Your task to perform on an android device: change timer sound Image 0: 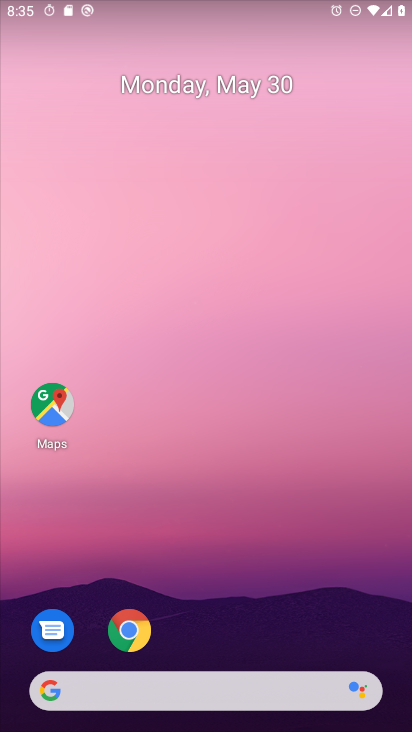
Step 0: drag from (344, 640) to (337, 54)
Your task to perform on an android device: change timer sound Image 1: 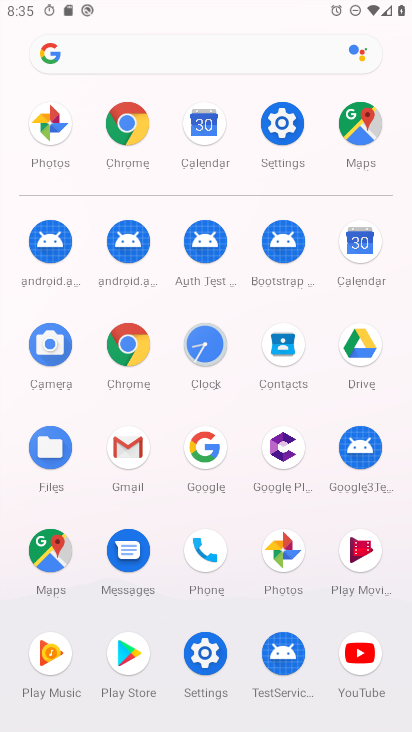
Step 1: click (212, 337)
Your task to perform on an android device: change timer sound Image 2: 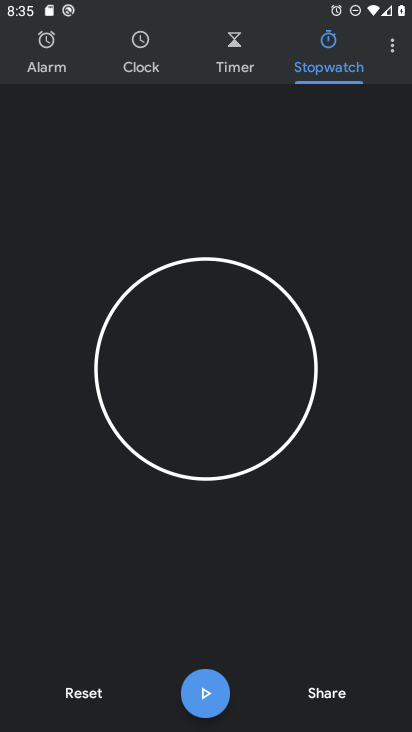
Step 2: click (393, 46)
Your task to perform on an android device: change timer sound Image 3: 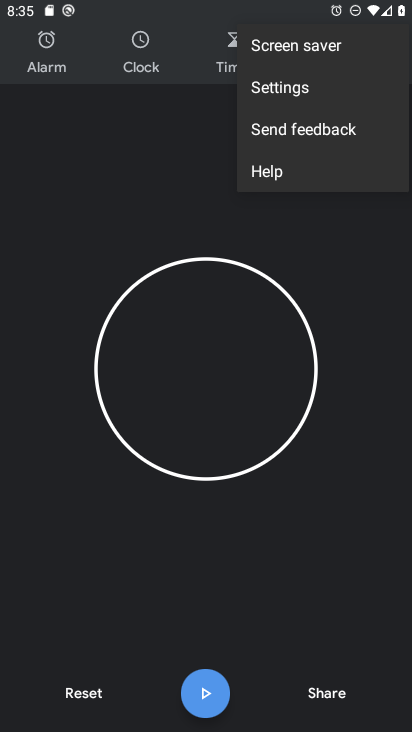
Step 3: click (298, 96)
Your task to perform on an android device: change timer sound Image 4: 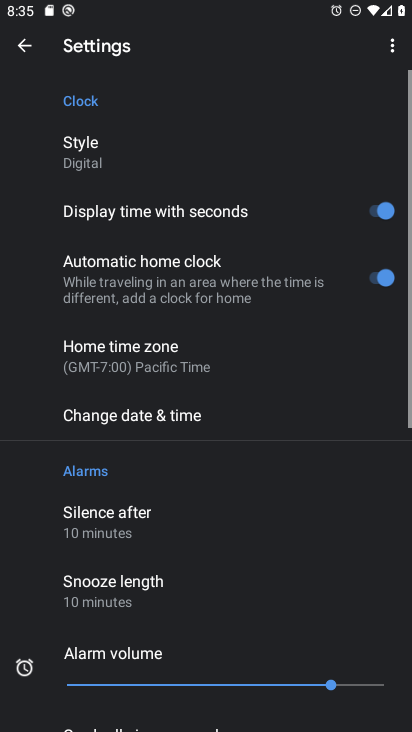
Step 4: drag from (194, 604) to (230, 64)
Your task to perform on an android device: change timer sound Image 5: 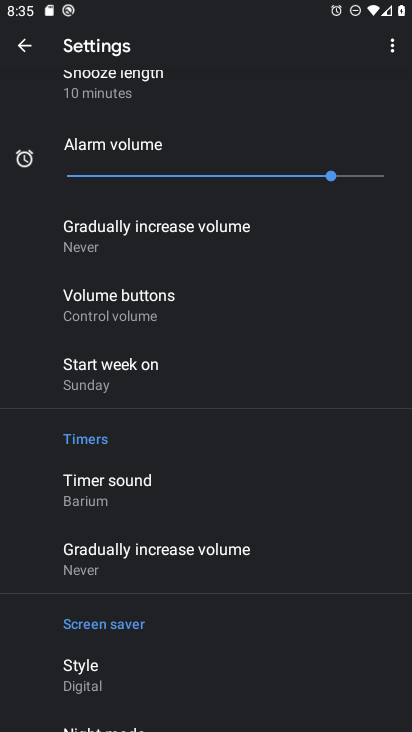
Step 5: click (134, 489)
Your task to perform on an android device: change timer sound Image 6: 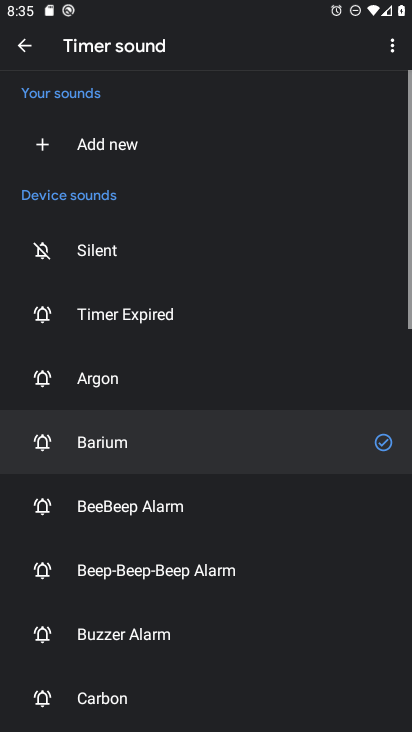
Step 6: click (184, 575)
Your task to perform on an android device: change timer sound Image 7: 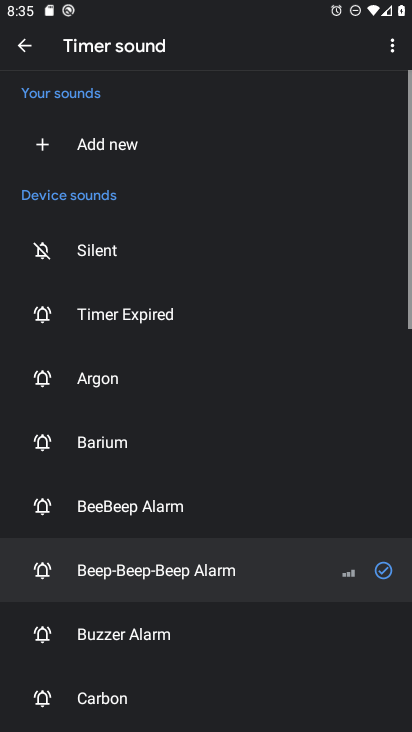
Step 7: task complete